Your task to perform on an android device: turn on the 24-hour format for clock Image 0: 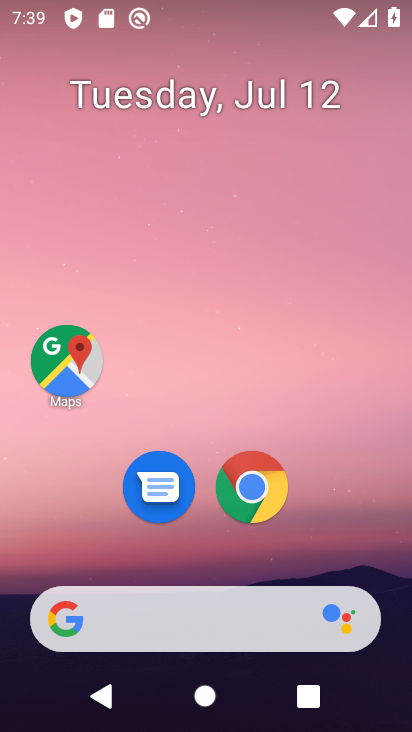
Step 0: drag from (177, 640) to (230, 214)
Your task to perform on an android device: turn on the 24-hour format for clock Image 1: 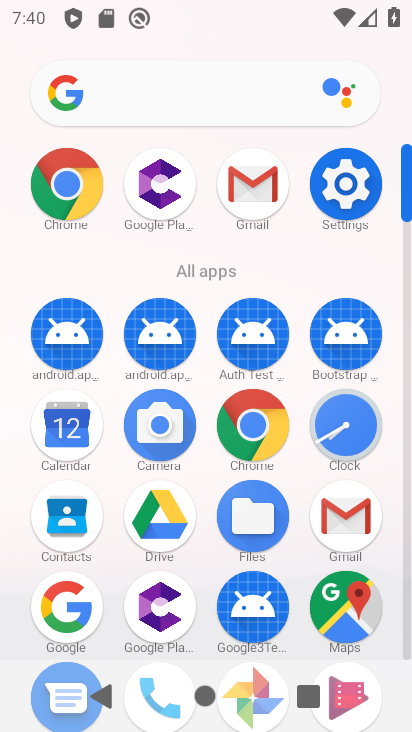
Step 1: click (349, 426)
Your task to perform on an android device: turn on the 24-hour format for clock Image 2: 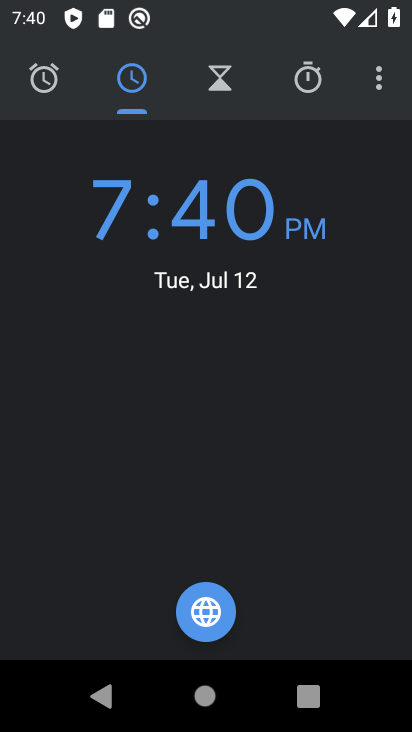
Step 2: click (375, 95)
Your task to perform on an android device: turn on the 24-hour format for clock Image 3: 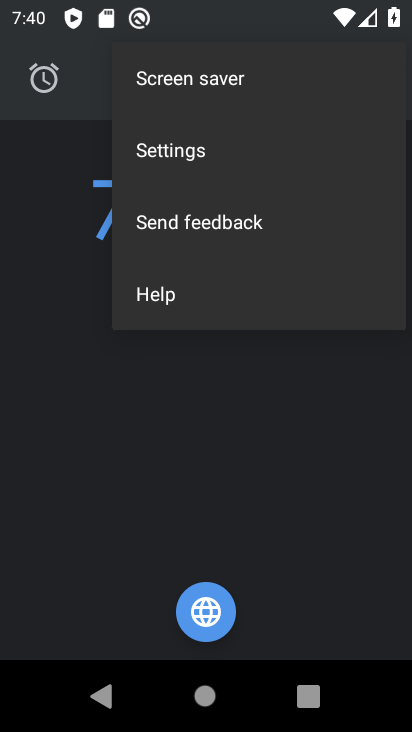
Step 3: click (209, 157)
Your task to perform on an android device: turn on the 24-hour format for clock Image 4: 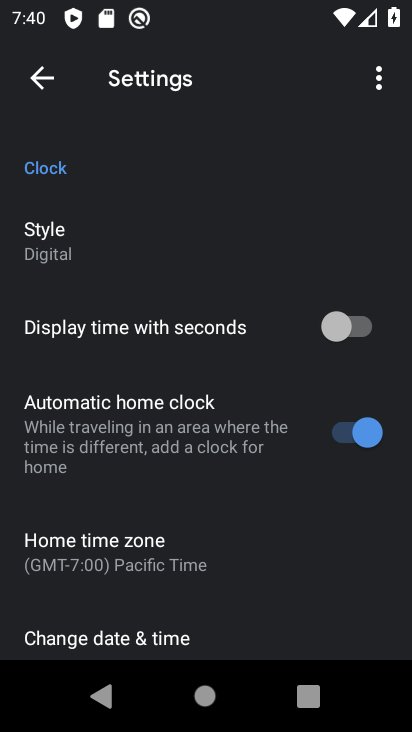
Step 4: drag from (120, 474) to (124, 274)
Your task to perform on an android device: turn on the 24-hour format for clock Image 5: 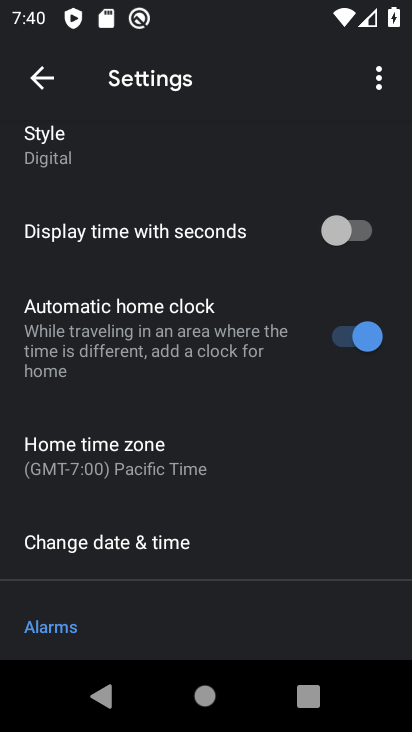
Step 5: click (160, 560)
Your task to perform on an android device: turn on the 24-hour format for clock Image 6: 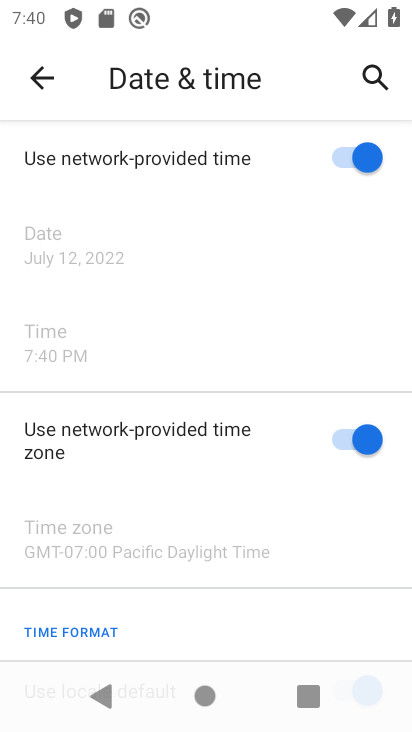
Step 6: task complete